Your task to perform on an android device: create a new album in the google photos Image 0: 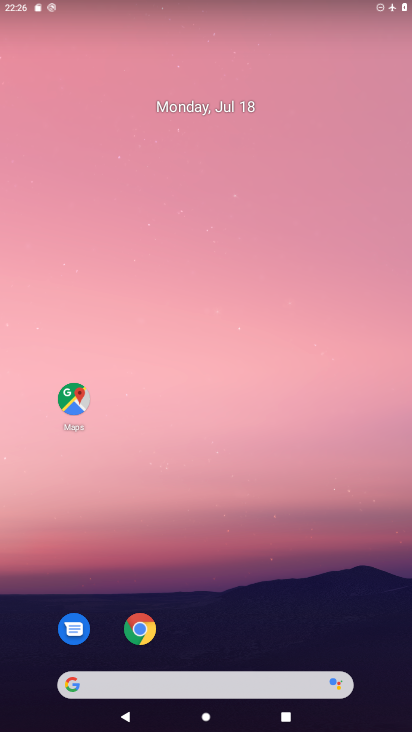
Step 0: drag from (300, 589) to (195, 108)
Your task to perform on an android device: create a new album in the google photos Image 1: 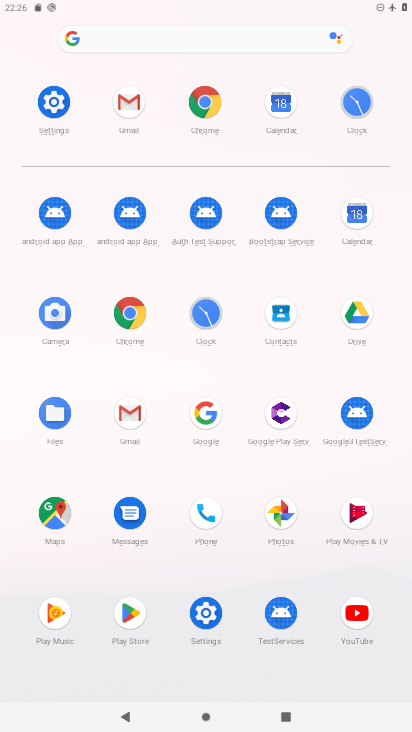
Step 1: click (284, 515)
Your task to perform on an android device: create a new album in the google photos Image 2: 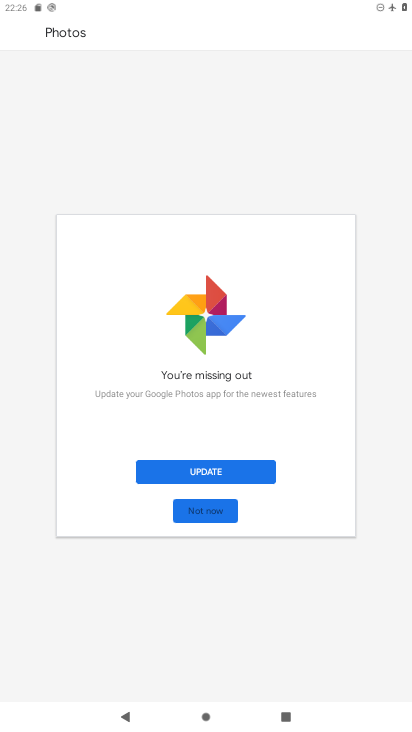
Step 2: click (210, 501)
Your task to perform on an android device: create a new album in the google photos Image 3: 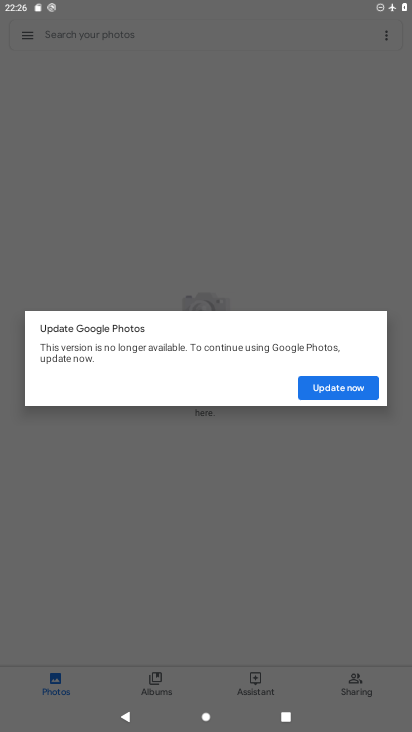
Step 3: click (329, 384)
Your task to perform on an android device: create a new album in the google photos Image 4: 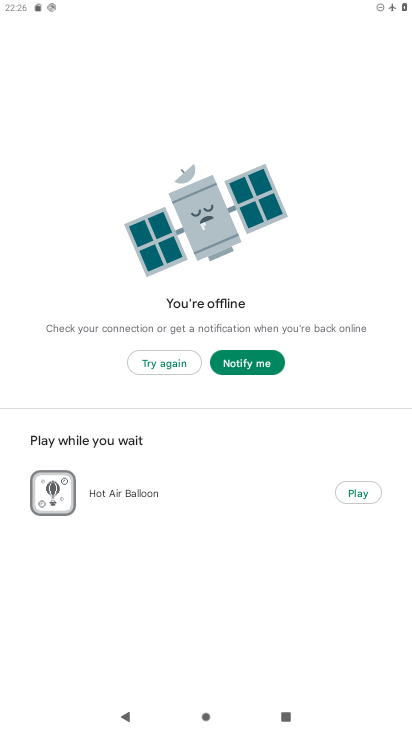
Step 4: task complete